Your task to perform on an android device: install app "PUBG MOBILE" Image 0: 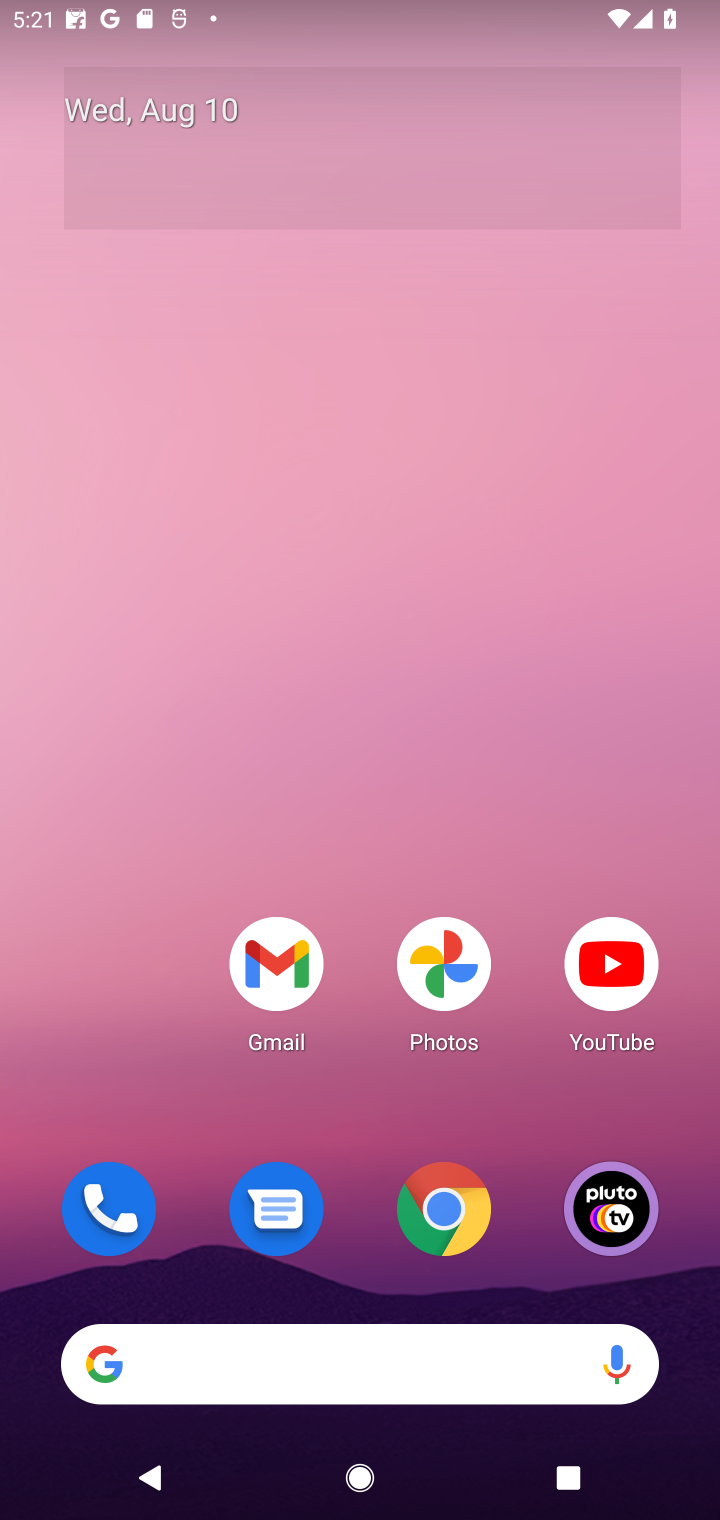
Step 0: drag from (376, 1312) to (341, 18)
Your task to perform on an android device: install app "PUBG MOBILE" Image 1: 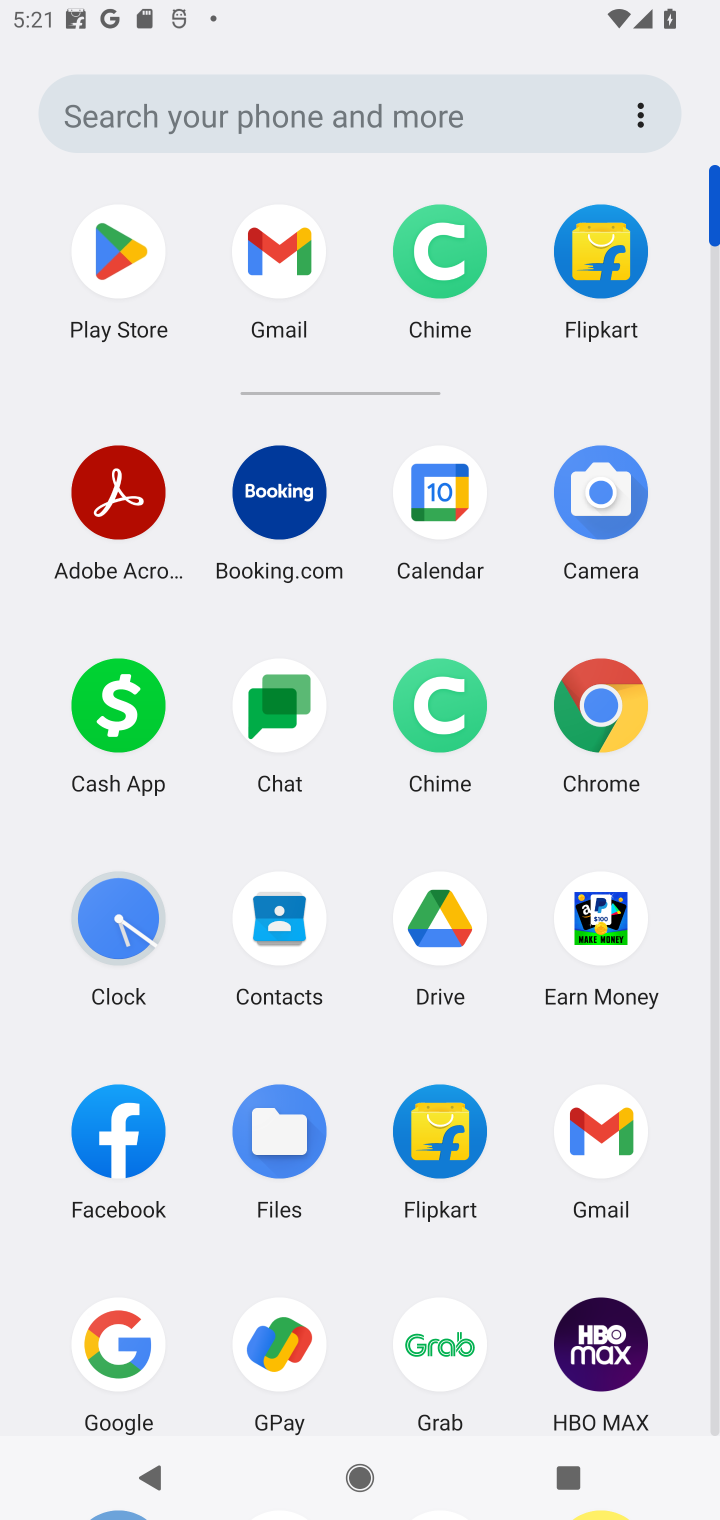
Step 1: click (146, 220)
Your task to perform on an android device: install app "PUBG MOBILE" Image 2: 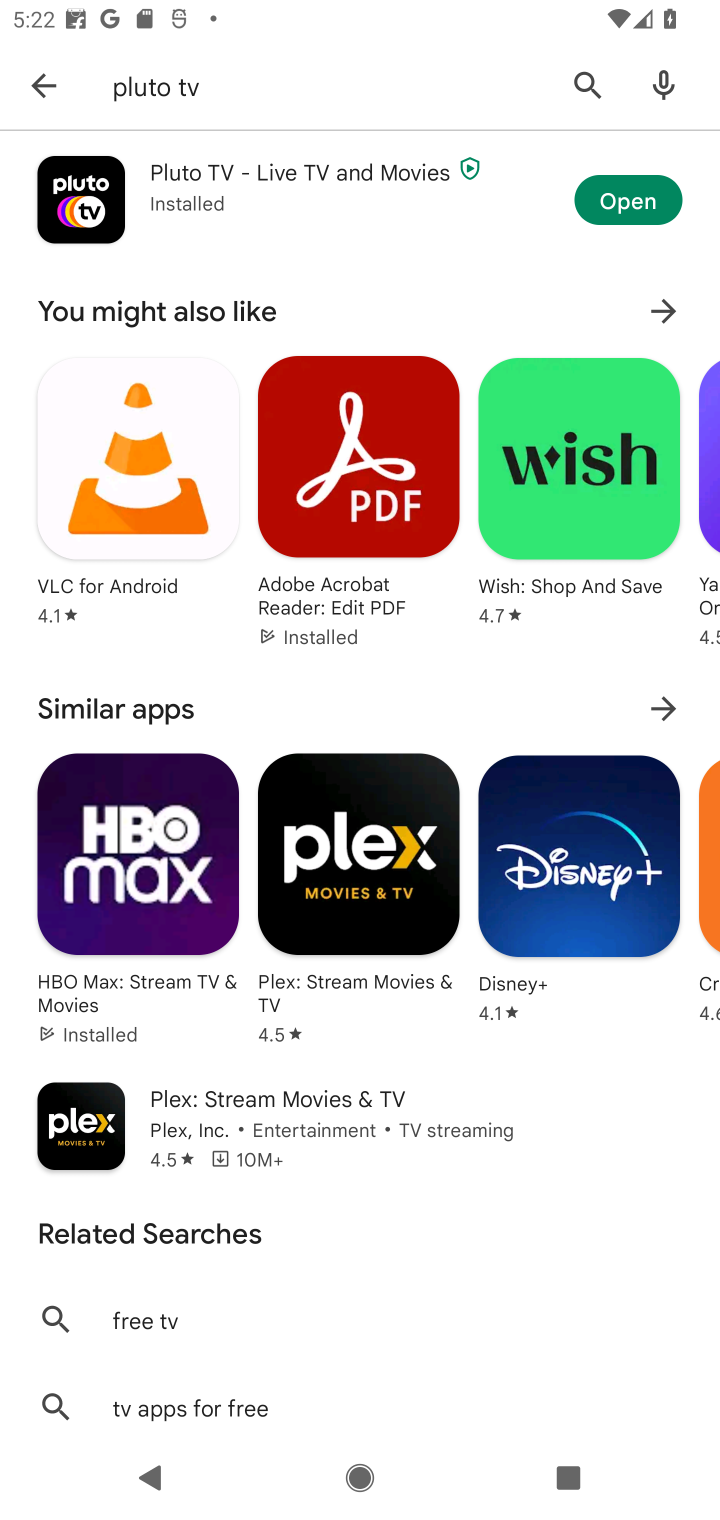
Step 2: click (590, 107)
Your task to perform on an android device: install app "PUBG MOBILE" Image 3: 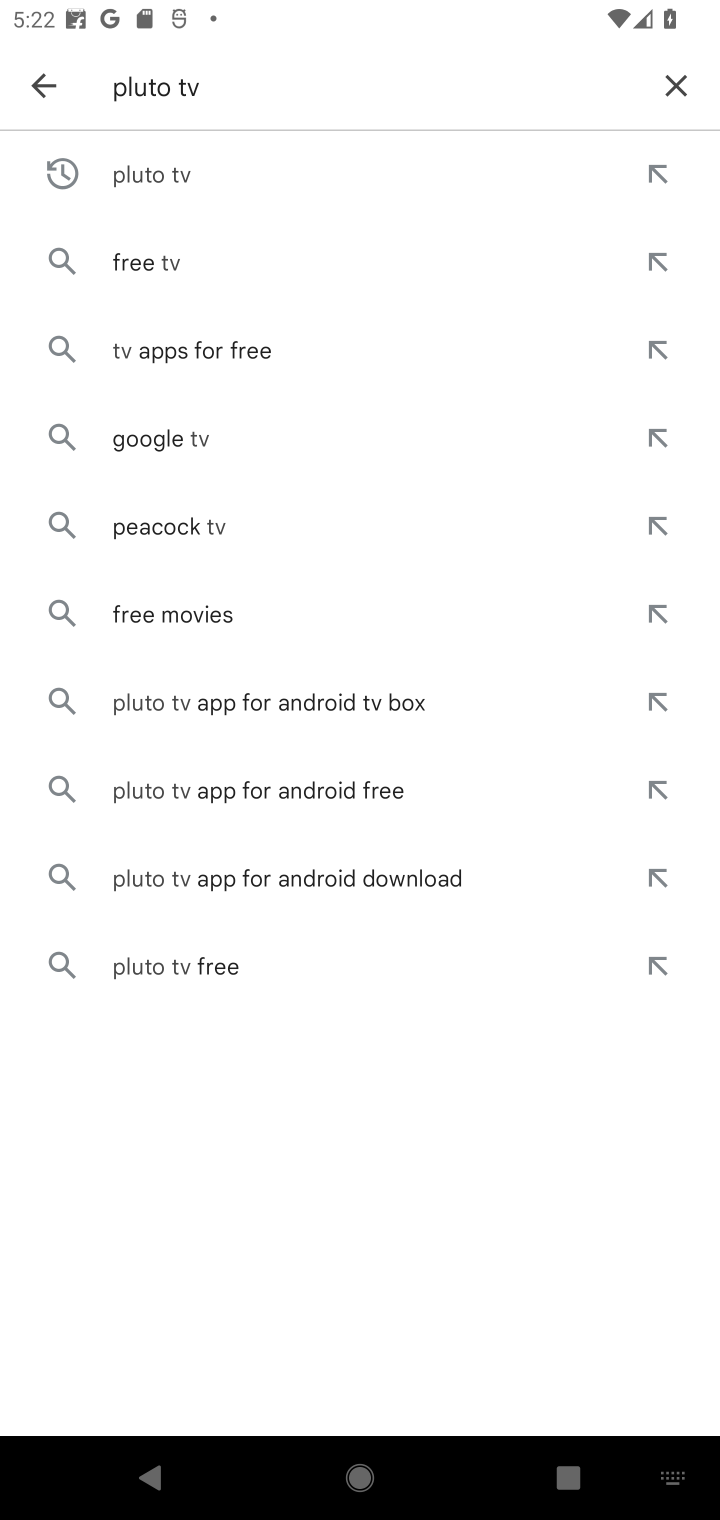
Step 3: click (674, 87)
Your task to perform on an android device: install app "PUBG MOBILE" Image 4: 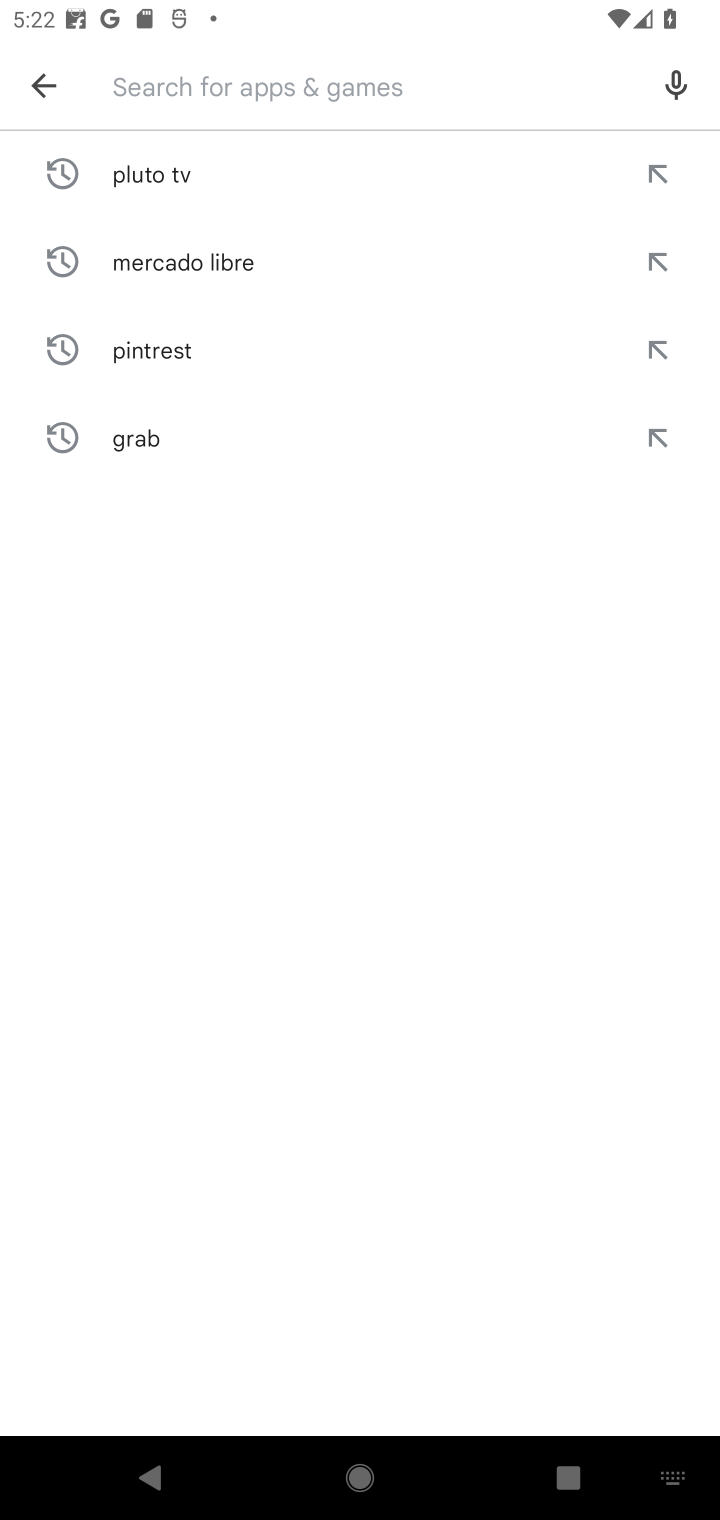
Step 4: type "pubg"
Your task to perform on an android device: install app "PUBG MOBILE" Image 5: 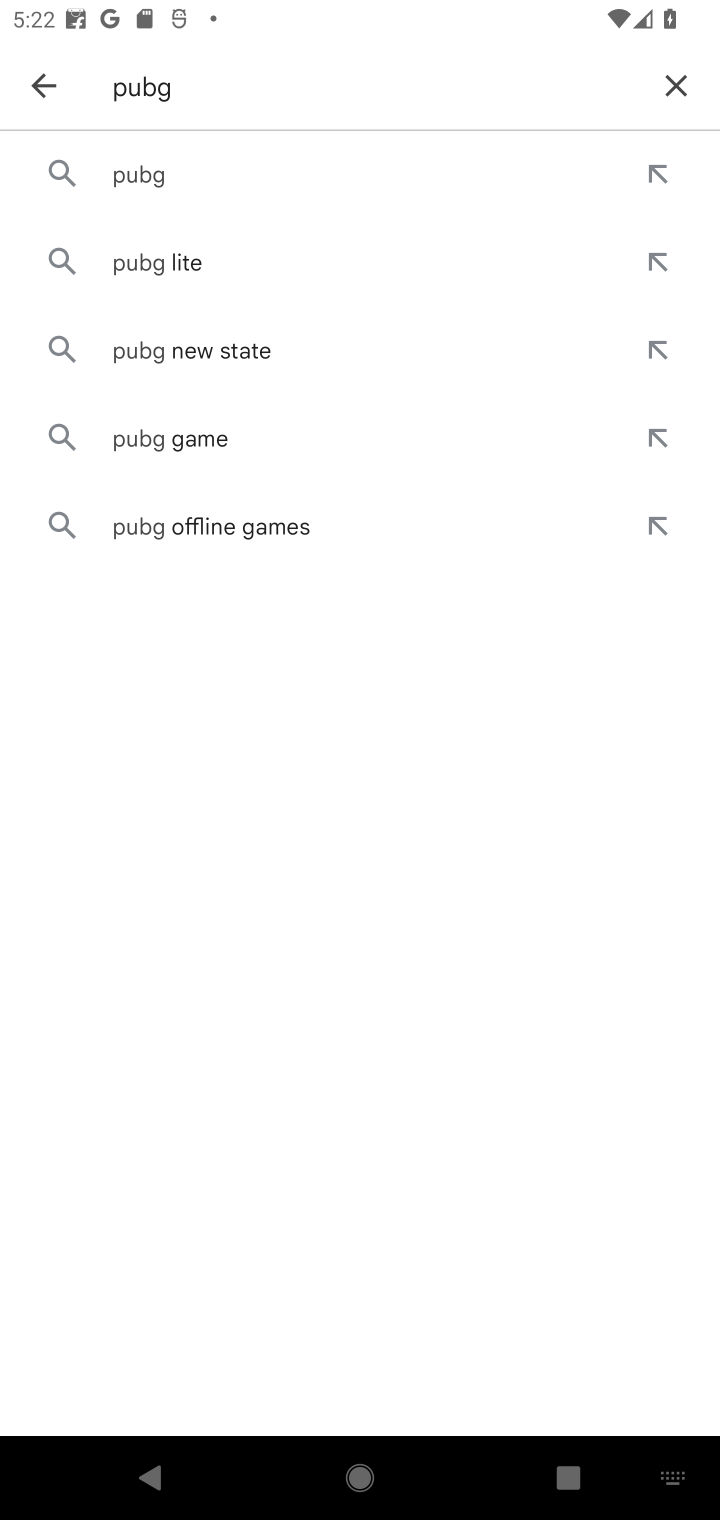
Step 5: click (222, 148)
Your task to perform on an android device: install app "PUBG MOBILE" Image 6: 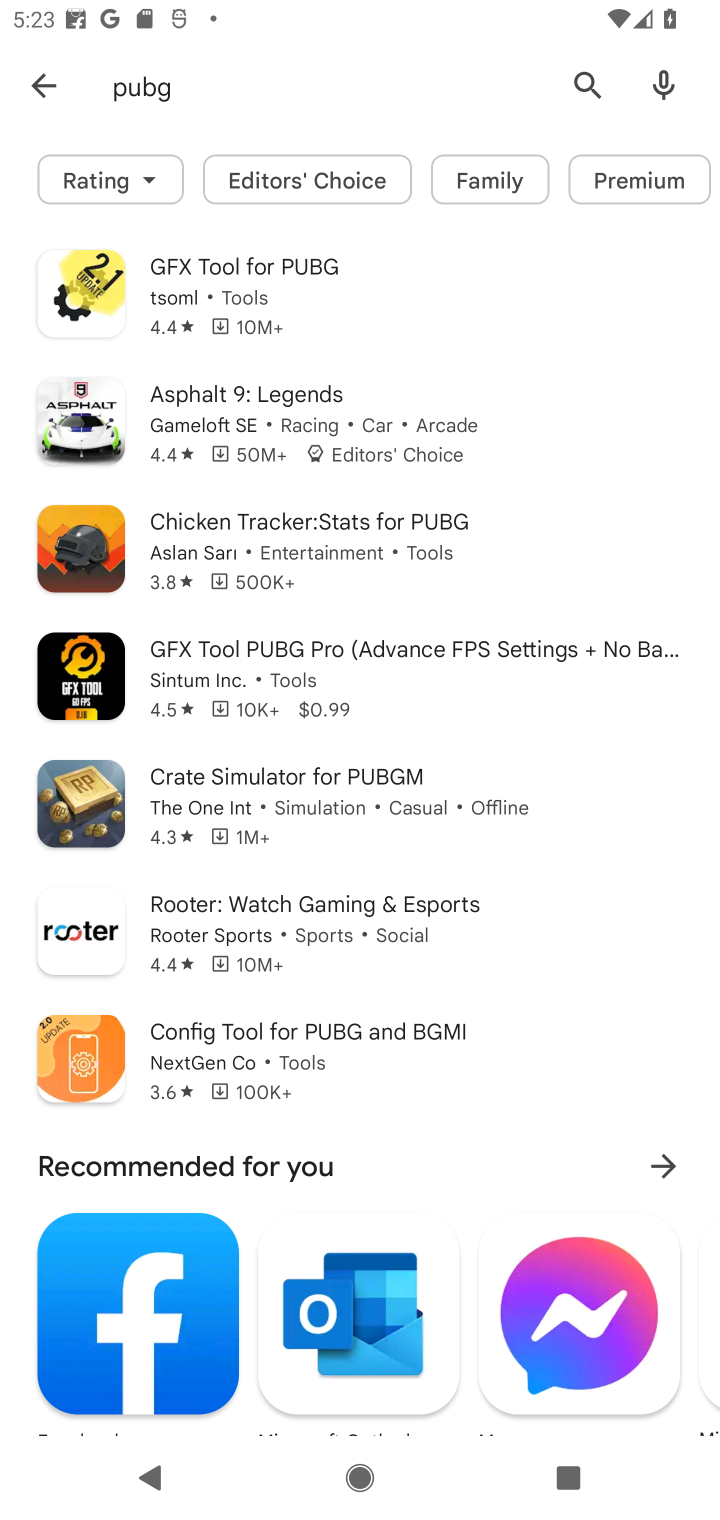
Step 6: task complete